Your task to perform on an android device: Go to settings Image 0: 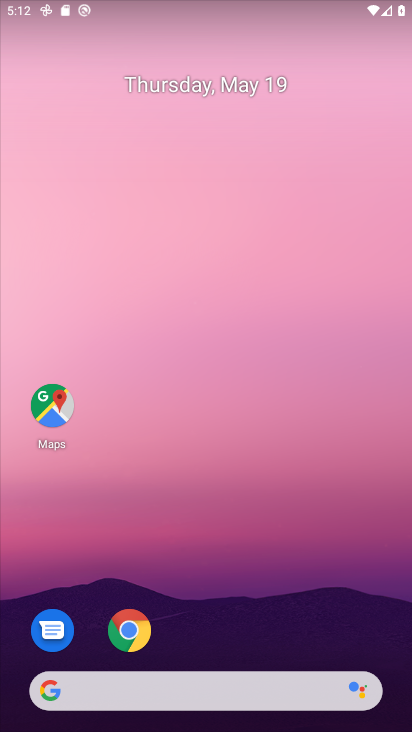
Step 0: drag from (254, 598) to (209, 39)
Your task to perform on an android device: Go to settings Image 1: 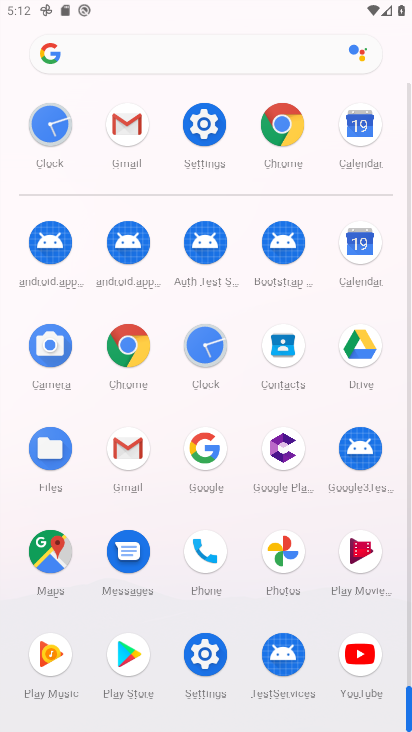
Step 1: click (205, 648)
Your task to perform on an android device: Go to settings Image 2: 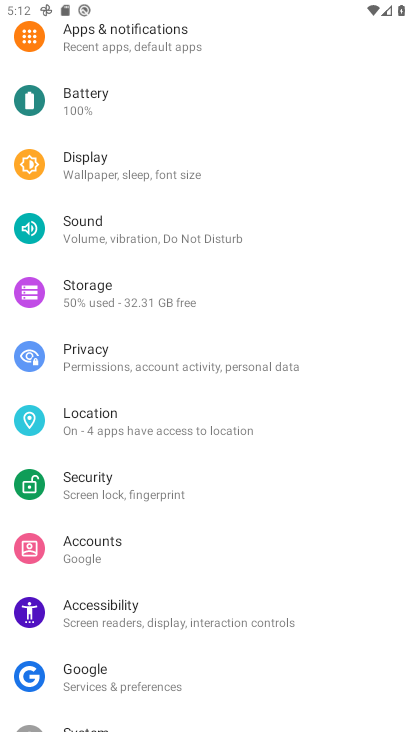
Step 2: task complete